Your task to perform on an android device: Go to Yahoo.com Image 0: 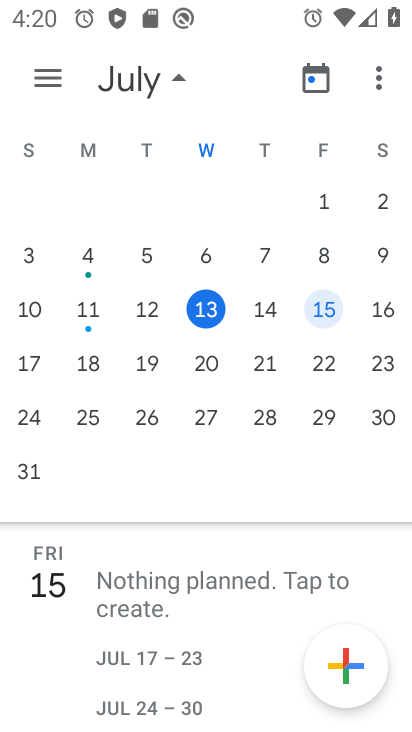
Step 0: press home button
Your task to perform on an android device: Go to Yahoo.com Image 1: 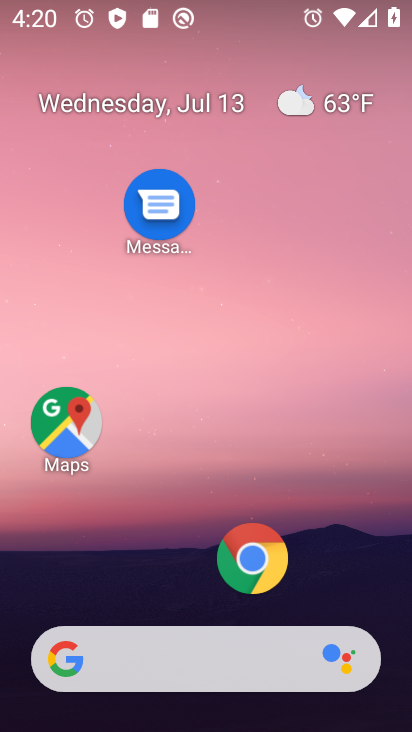
Step 1: drag from (222, 594) to (231, 250)
Your task to perform on an android device: Go to Yahoo.com Image 2: 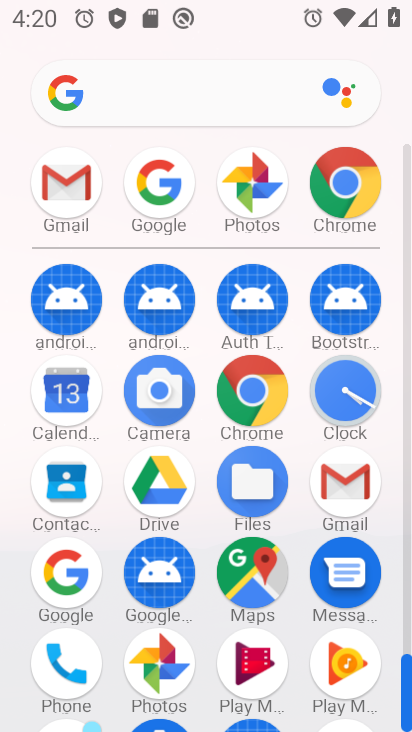
Step 2: click (340, 200)
Your task to perform on an android device: Go to Yahoo.com Image 3: 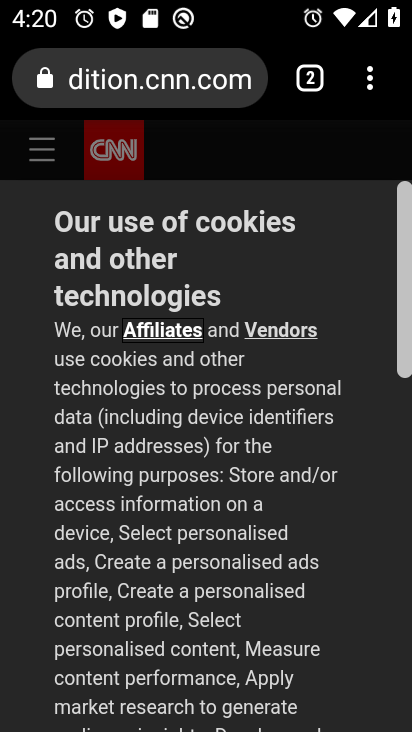
Step 3: click (312, 81)
Your task to perform on an android device: Go to Yahoo.com Image 4: 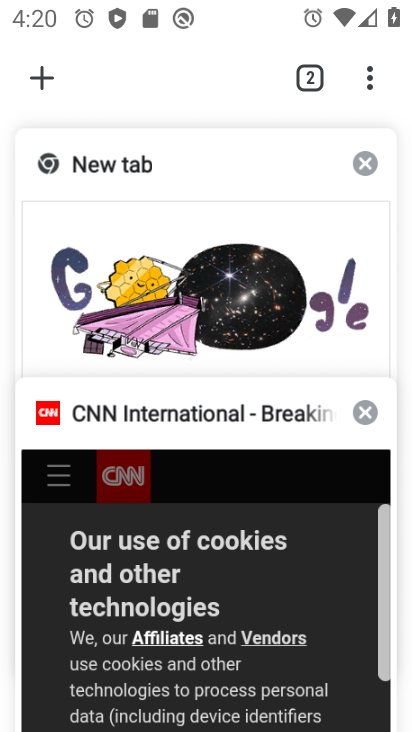
Step 4: click (364, 164)
Your task to perform on an android device: Go to Yahoo.com Image 5: 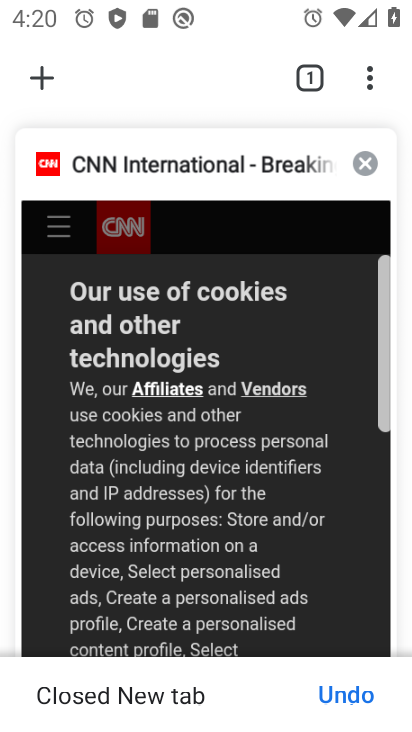
Step 5: click (374, 155)
Your task to perform on an android device: Go to Yahoo.com Image 6: 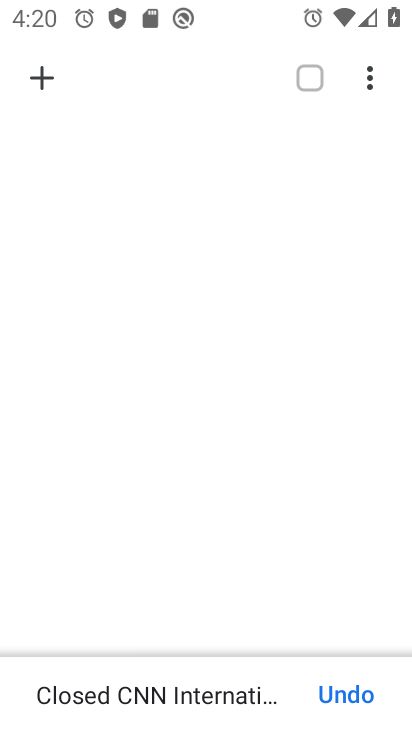
Step 6: click (47, 74)
Your task to perform on an android device: Go to Yahoo.com Image 7: 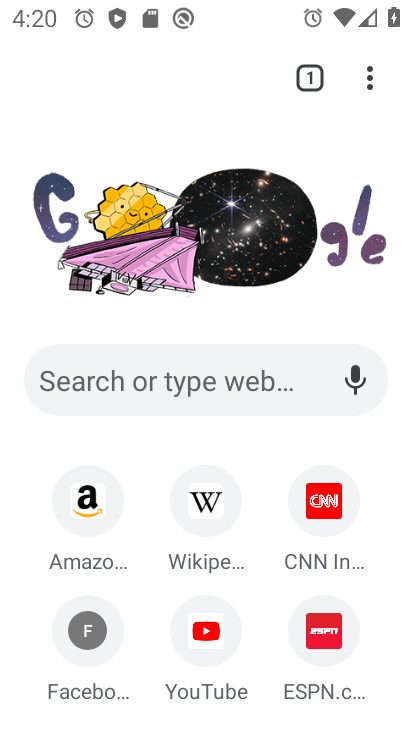
Step 7: drag from (165, 671) to (174, 370)
Your task to perform on an android device: Go to Yahoo.com Image 8: 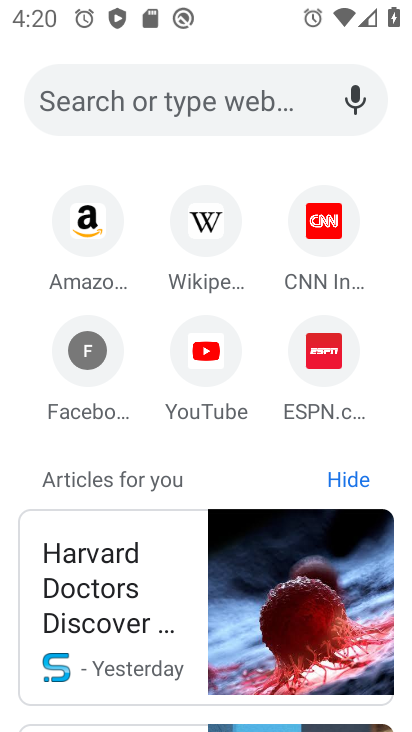
Step 8: type "Yahoo.com"
Your task to perform on an android device: Go to Yahoo.com Image 9: 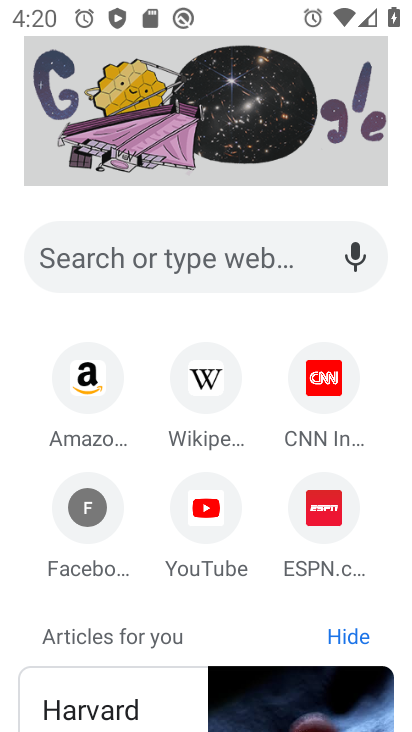
Step 9: drag from (167, 90) to (126, 568)
Your task to perform on an android device: Go to Yahoo.com Image 10: 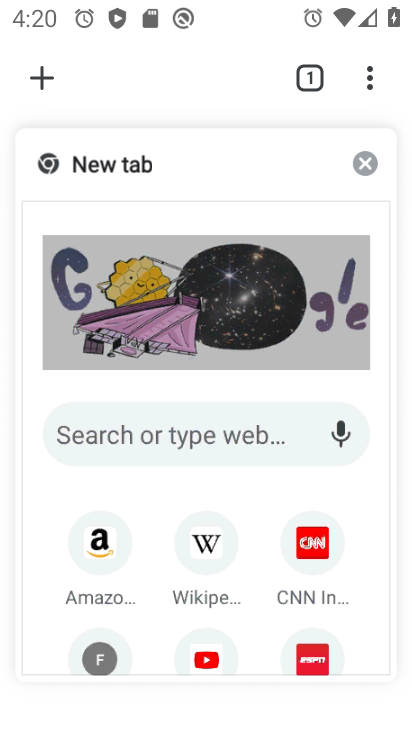
Step 10: drag from (161, 501) to (162, 166)
Your task to perform on an android device: Go to Yahoo.com Image 11: 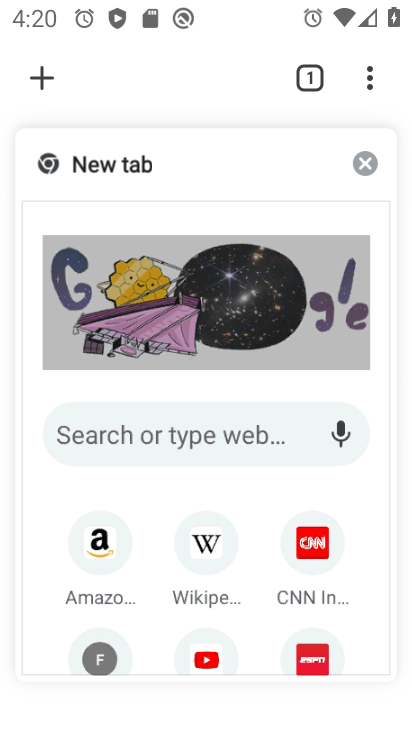
Step 11: click (213, 287)
Your task to perform on an android device: Go to Yahoo.com Image 12: 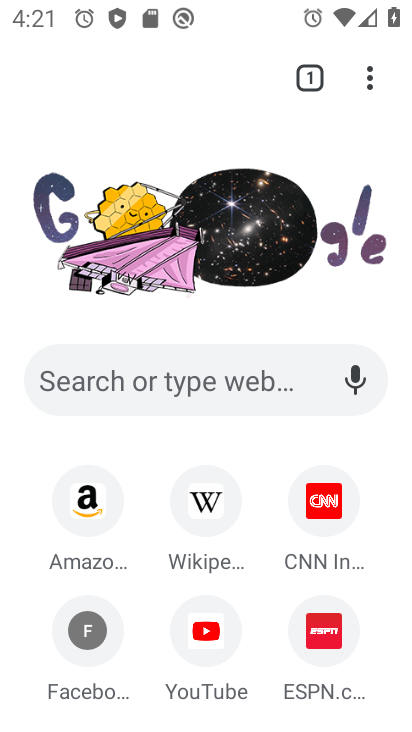
Step 12: click (103, 381)
Your task to perform on an android device: Go to Yahoo.com Image 13: 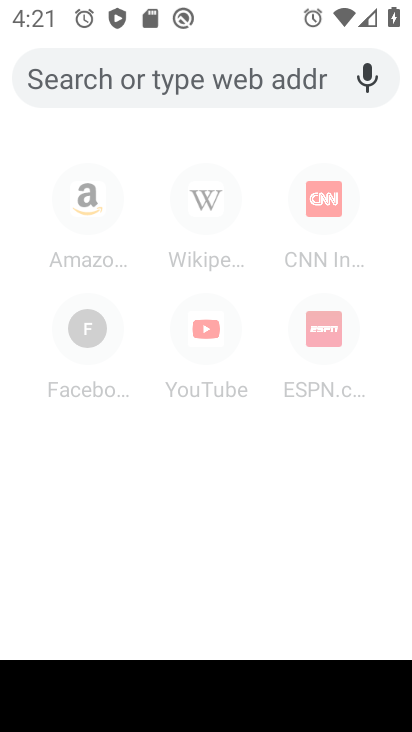
Step 13: type "Yahoo.com"
Your task to perform on an android device: Go to Yahoo.com Image 14: 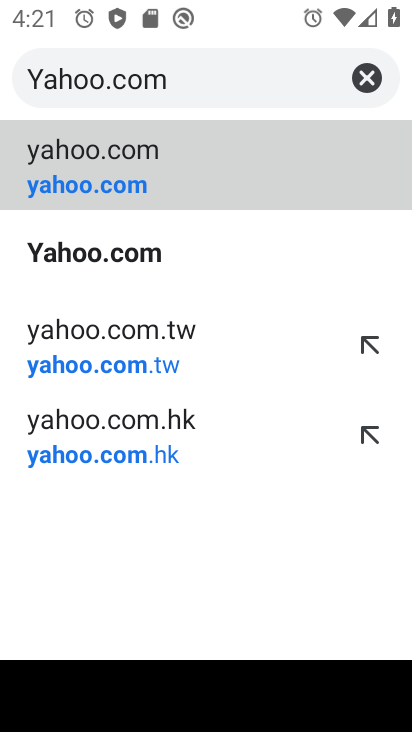
Step 14: click (116, 177)
Your task to perform on an android device: Go to Yahoo.com Image 15: 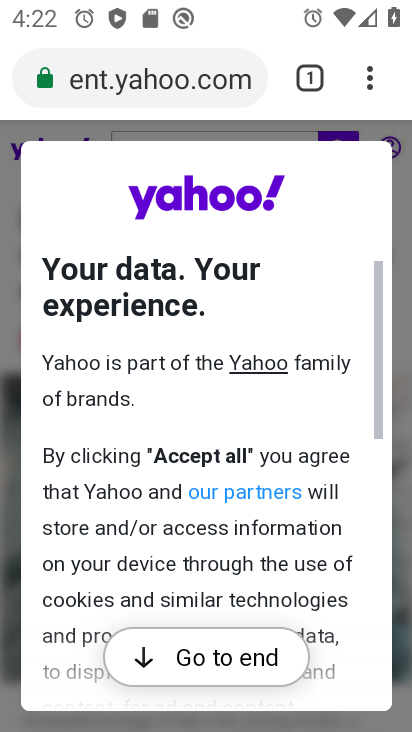
Step 15: task complete